Your task to perform on an android device: Open the phone app and click the voicemail tab. Image 0: 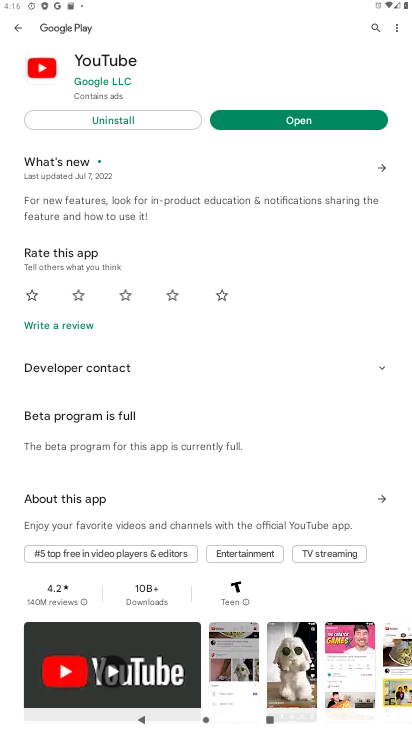
Step 0: press home button
Your task to perform on an android device: Open the phone app and click the voicemail tab. Image 1: 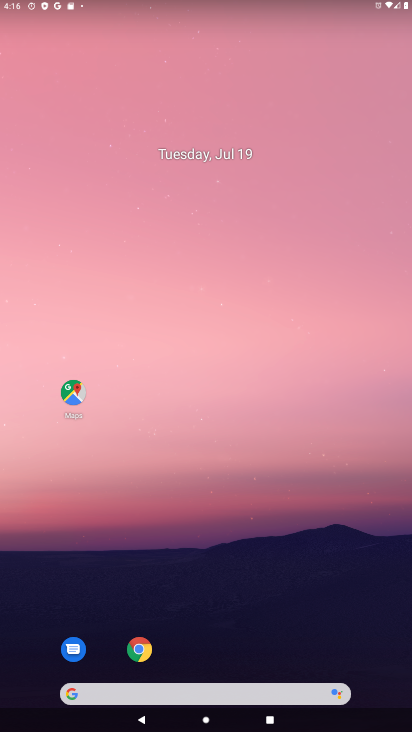
Step 1: drag from (366, 619) to (220, 113)
Your task to perform on an android device: Open the phone app and click the voicemail tab. Image 2: 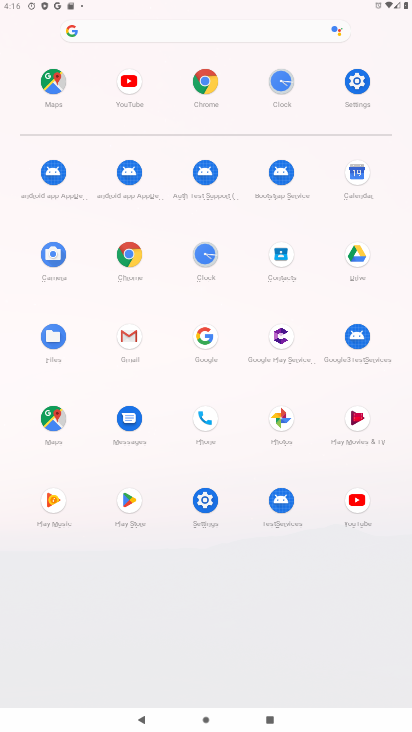
Step 2: click (214, 422)
Your task to perform on an android device: Open the phone app and click the voicemail tab. Image 3: 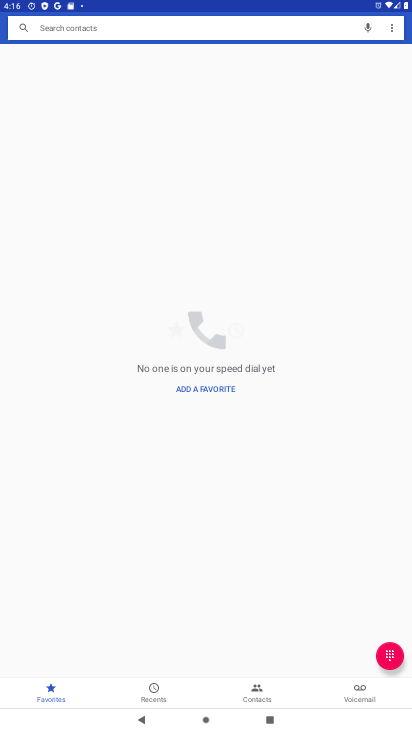
Step 3: click (365, 687)
Your task to perform on an android device: Open the phone app and click the voicemail tab. Image 4: 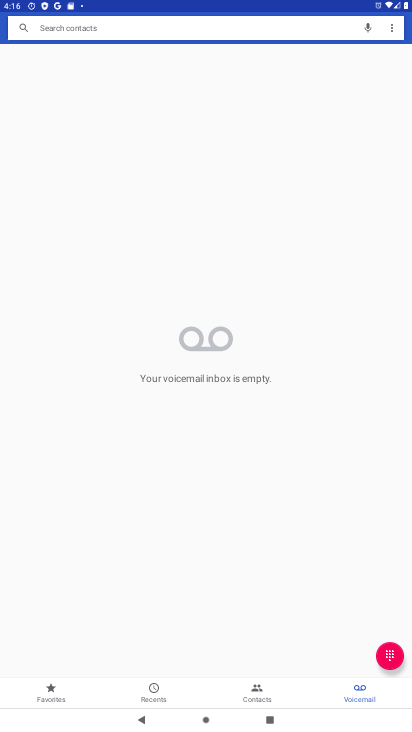
Step 4: task complete